Your task to perform on an android device: Open calendar and show me the second week of next month Image 0: 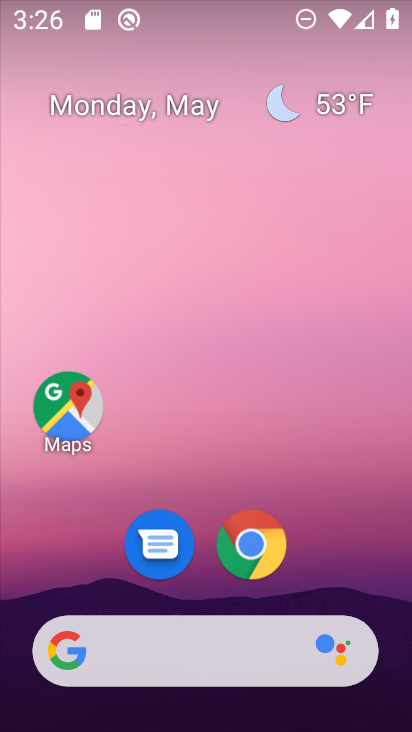
Step 0: drag from (126, 729) to (118, 40)
Your task to perform on an android device: Open calendar and show me the second week of next month Image 1: 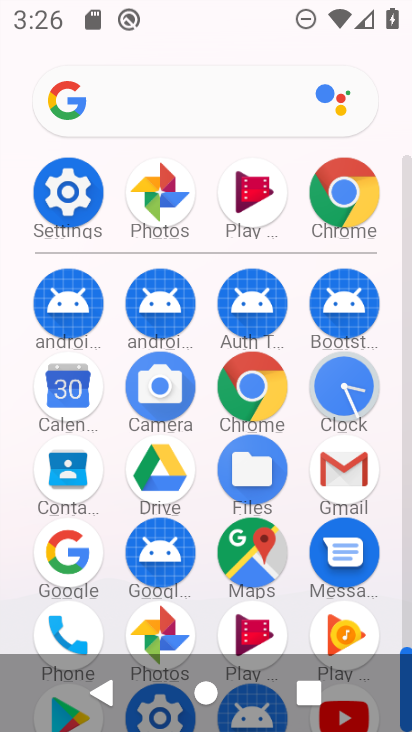
Step 1: click (52, 406)
Your task to perform on an android device: Open calendar and show me the second week of next month Image 2: 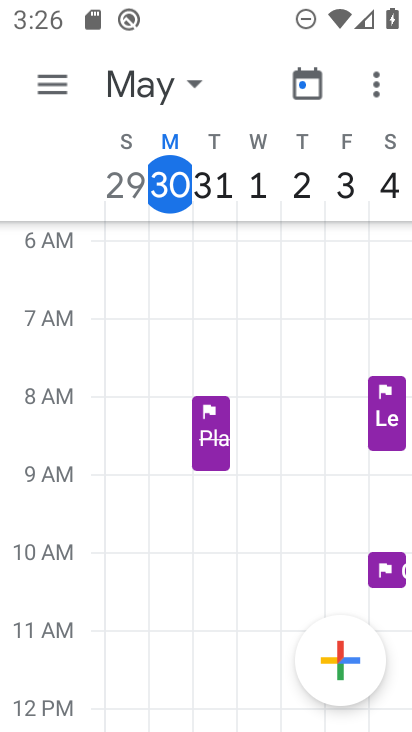
Step 2: task complete